Your task to perform on an android device: Open calendar and show me the third week of next month Image 0: 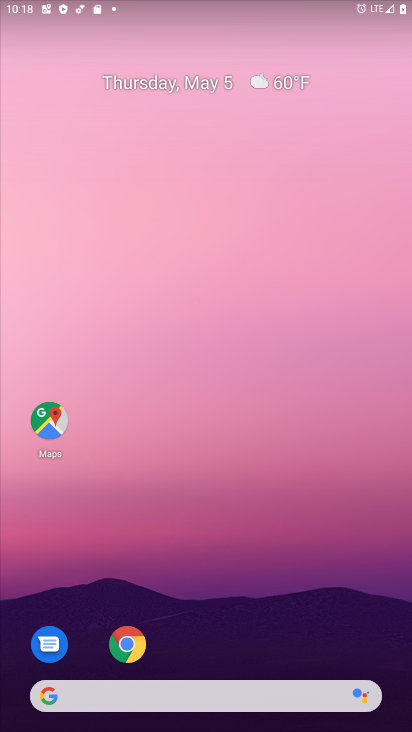
Step 0: drag from (211, 622) to (211, 284)
Your task to perform on an android device: Open calendar and show me the third week of next month Image 1: 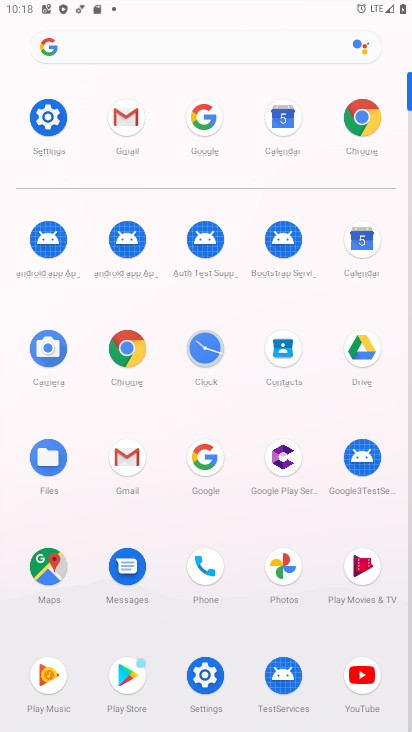
Step 1: click (358, 250)
Your task to perform on an android device: Open calendar and show me the third week of next month Image 2: 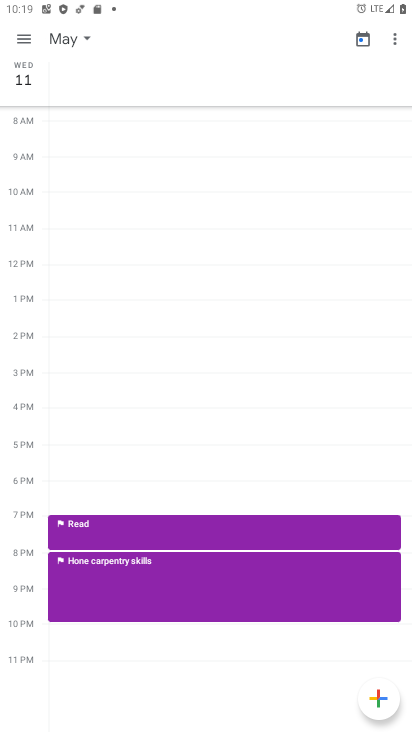
Step 2: click (72, 30)
Your task to perform on an android device: Open calendar and show me the third week of next month Image 3: 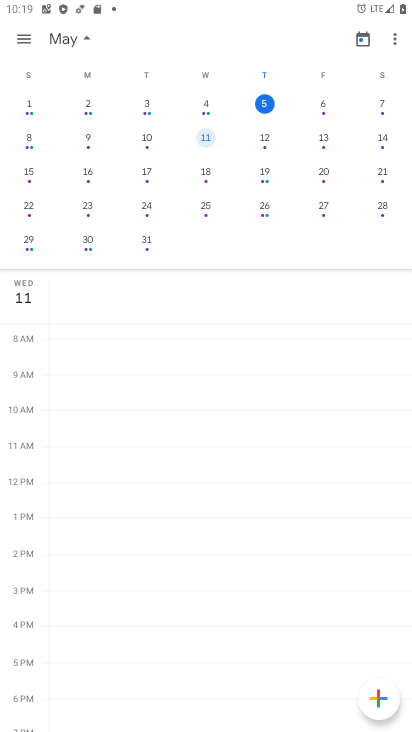
Step 3: drag from (308, 212) to (26, 213)
Your task to perform on an android device: Open calendar and show me the third week of next month Image 4: 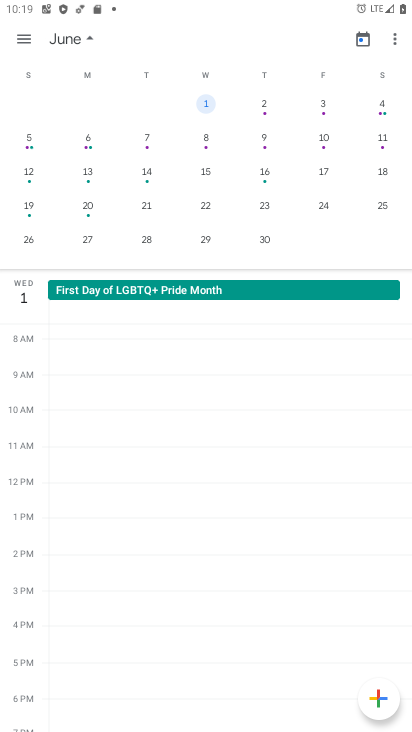
Step 4: click (25, 170)
Your task to perform on an android device: Open calendar and show me the third week of next month Image 5: 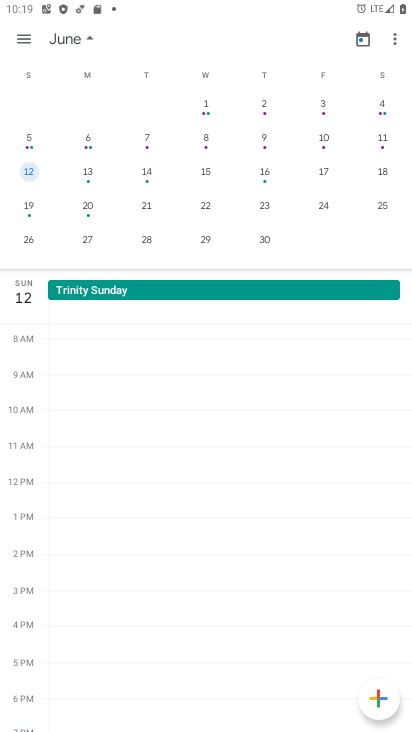
Step 5: click (88, 180)
Your task to perform on an android device: Open calendar and show me the third week of next month Image 6: 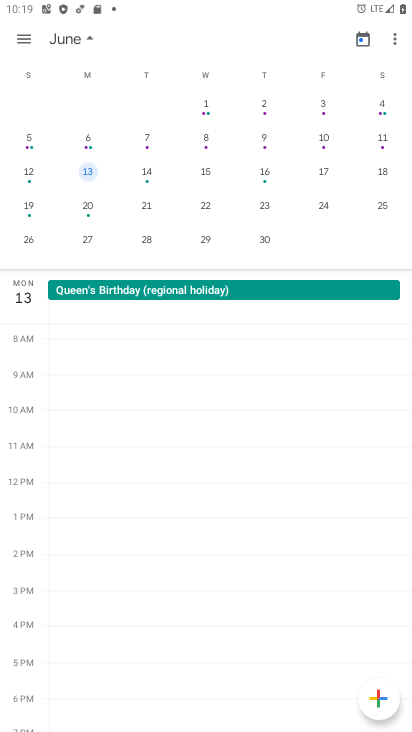
Step 6: click (153, 171)
Your task to perform on an android device: Open calendar and show me the third week of next month Image 7: 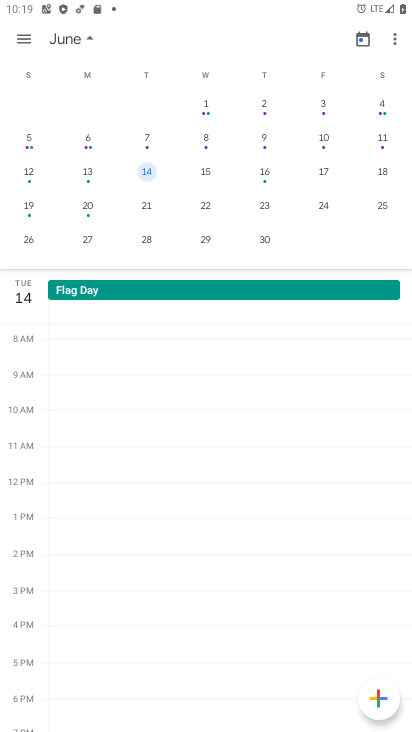
Step 7: click (213, 176)
Your task to perform on an android device: Open calendar and show me the third week of next month Image 8: 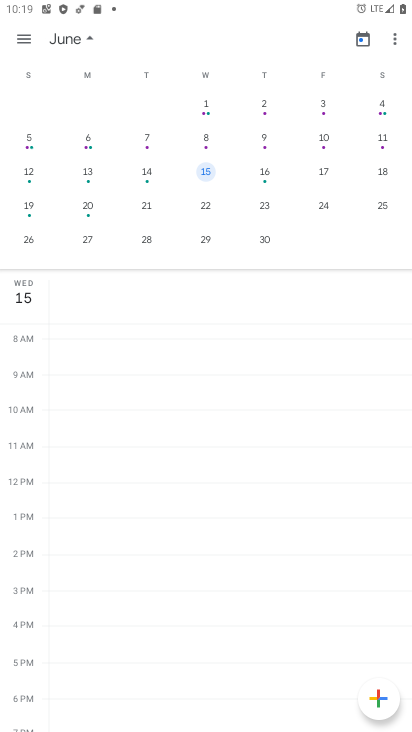
Step 8: click (266, 177)
Your task to perform on an android device: Open calendar and show me the third week of next month Image 9: 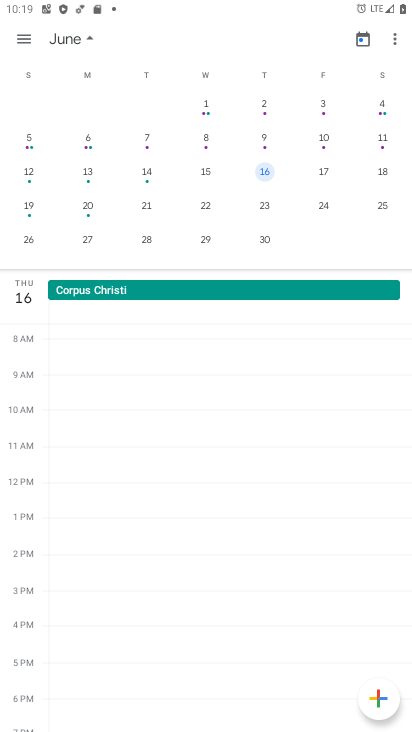
Step 9: click (327, 184)
Your task to perform on an android device: Open calendar and show me the third week of next month Image 10: 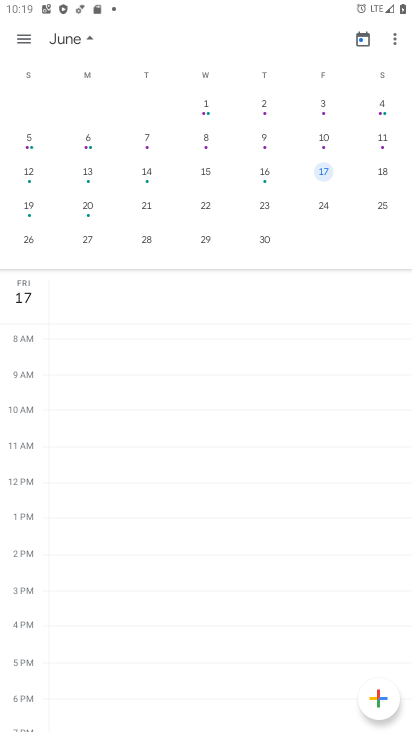
Step 10: click (387, 182)
Your task to perform on an android device: Open calendar and show me the third week of next month Image 11: 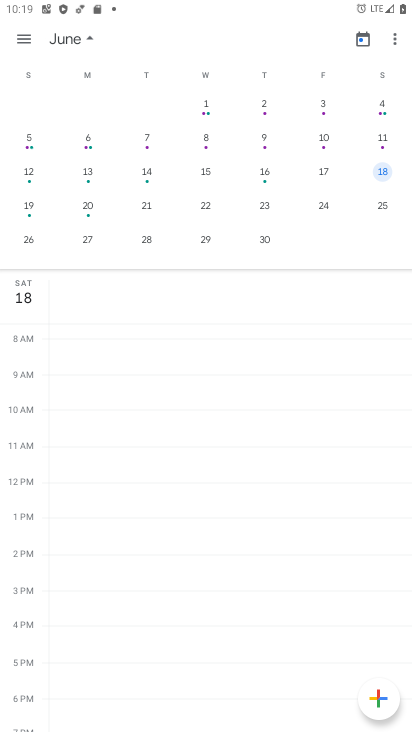
Step 11: task complete